Your task to perform on an android device: open chrome and create a bookmark for the current page Image 0: 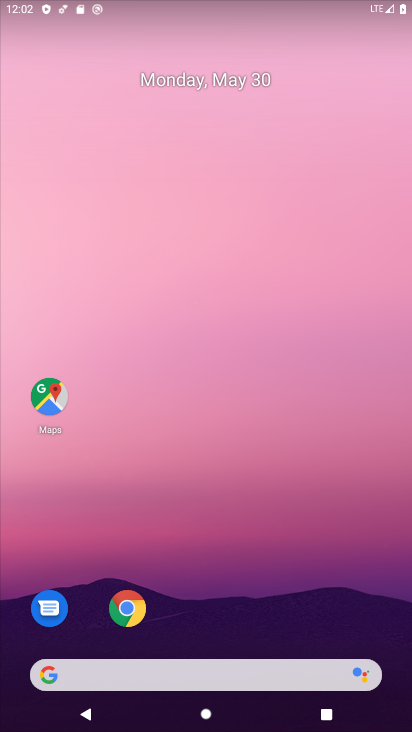
Step 0: click (141, 611)
Your task to perform on an android device: open chrome and create a bookmark for the current page Image 1: 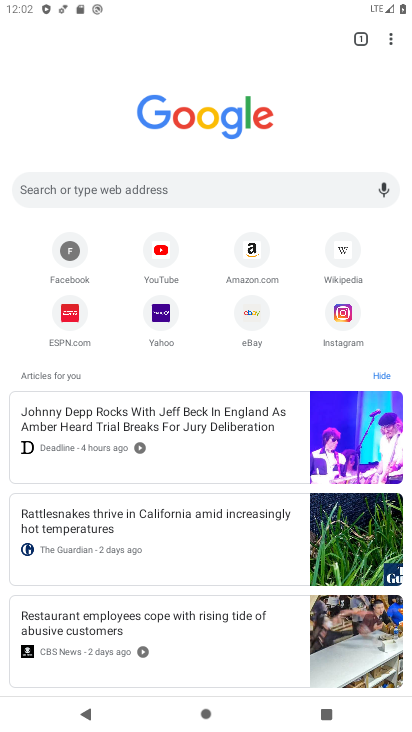
Step 1: click (395, 44)
Your task to perform on an android device: open chrome and create a bookmark for the current page Image 2: 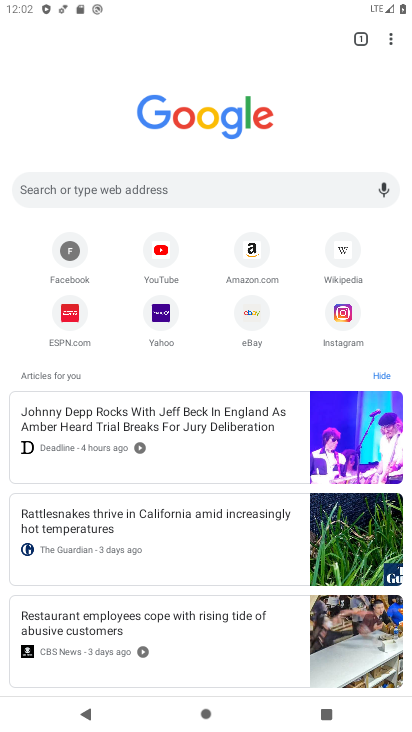
Step 2: click (395, 43)
Your task to perform on an android device: open chrome and create a bookmark for the current page Image 3: 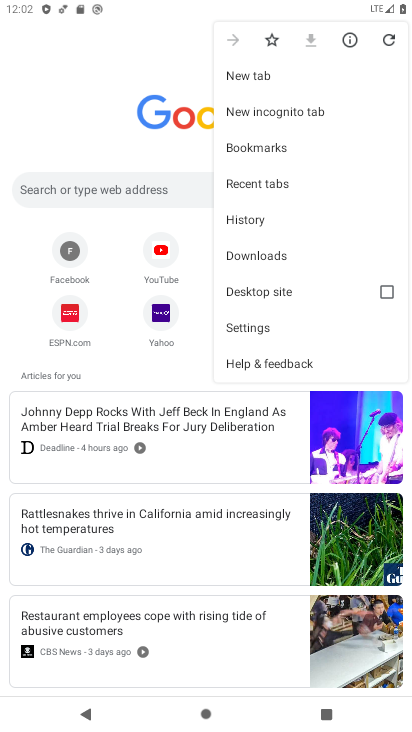
Step 3: click (265, 38)
Your task to perform on an android device: open chrome and create a bookmark for the current page Image 4: 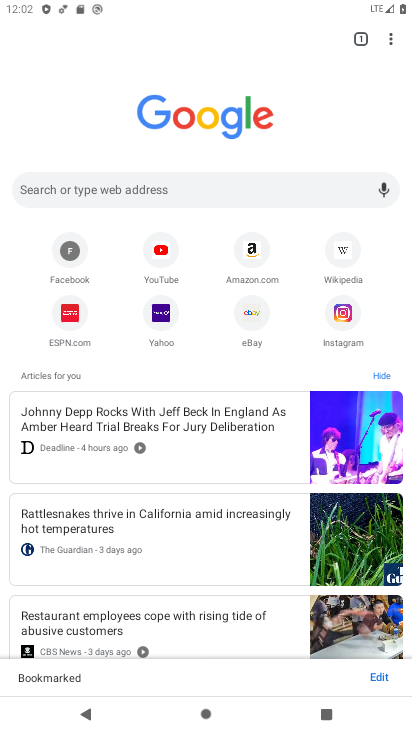
Step 4: task complete